Your task to perform on an android device: open app "Microsoft Authenticator" (install if not already installed) and enter user name: "Cornell@yahoo.com" and password: "bothersome" Image 0: 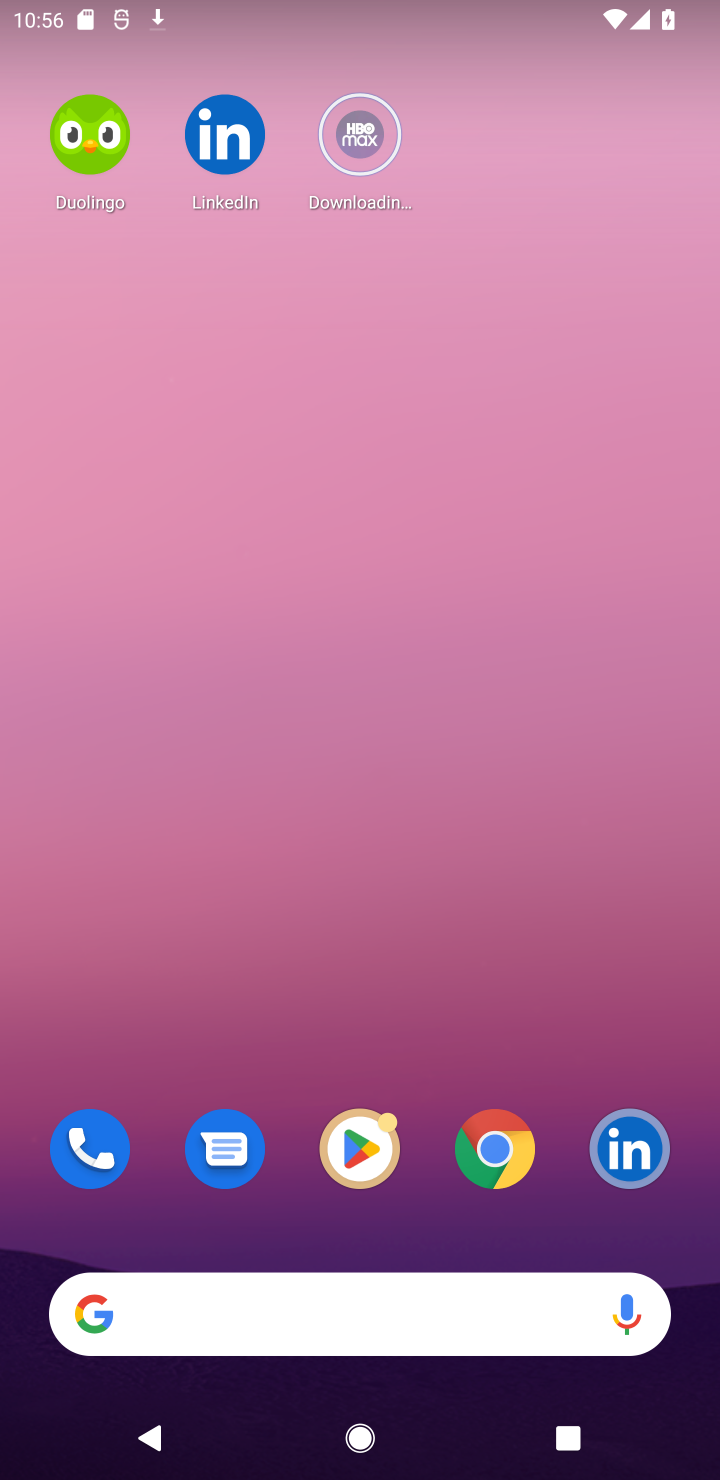
Step 0: click (382, 1151)
Your task to perform on an android device: open app "Microsoft Authenticator" (install if not already installed) and enter user name: "Cornell@yahoo.com" and password: "bothersome" Image 1: 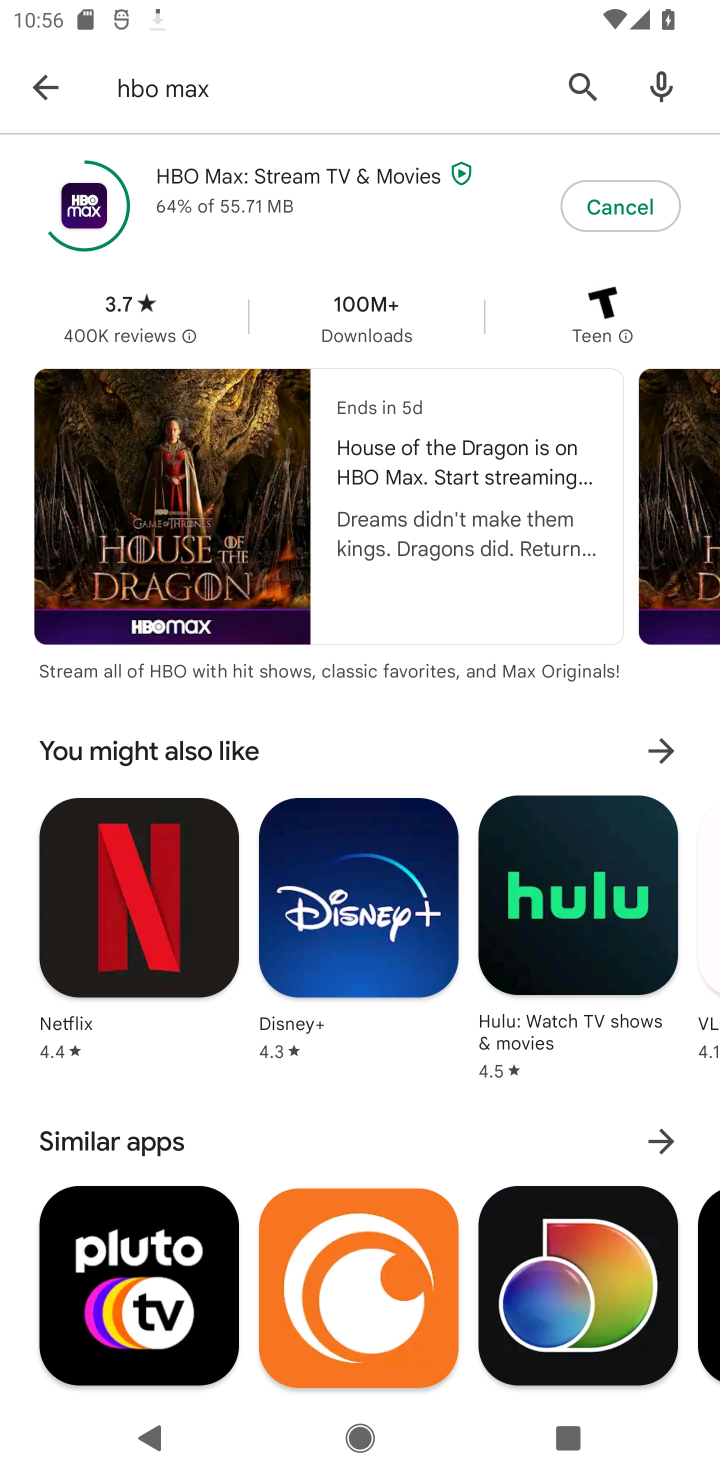
Step 1: click (563, 76)
Your task to perform on an android device: open app "Microsoft Authenticator" (install if not already installed) and enter user name: "Cornell@yahoo.com" and password: "bothersome" Image 2: 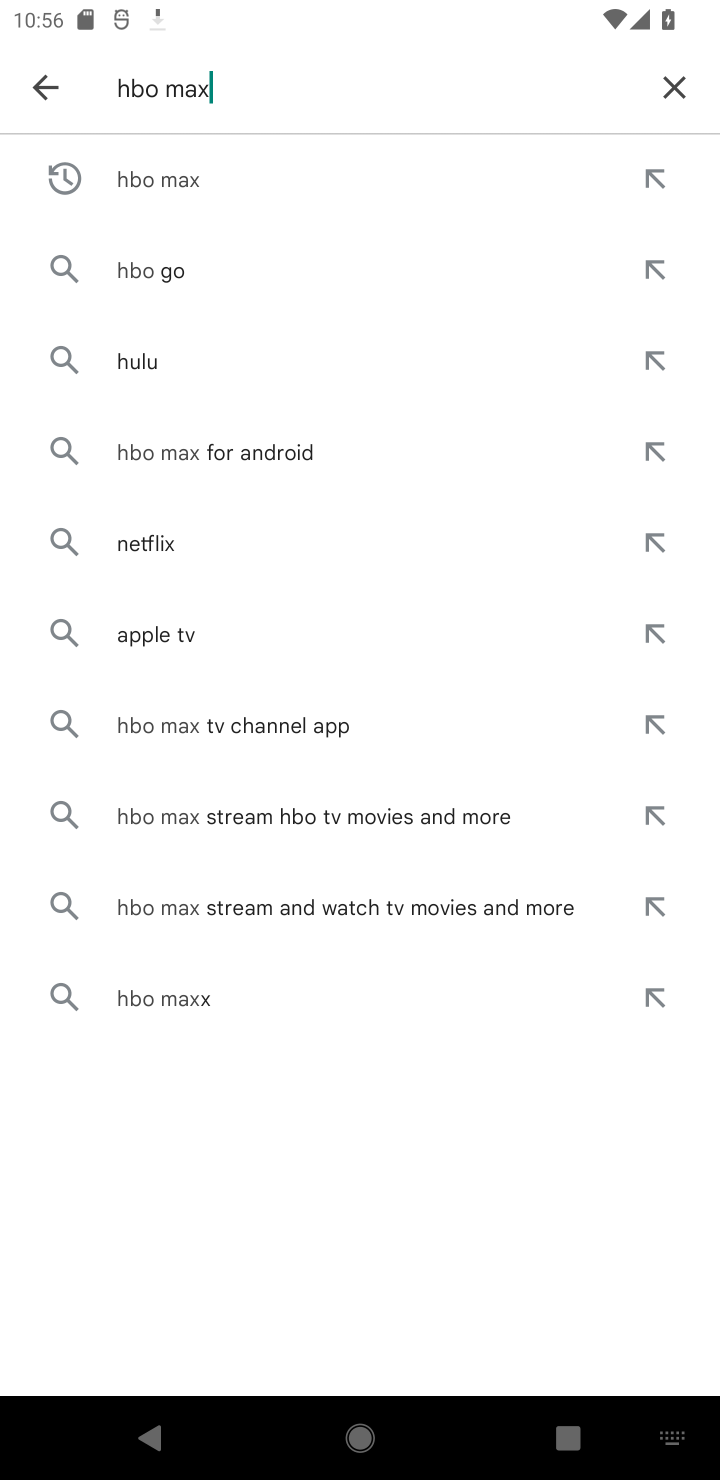
Step 2: click (657, 71)
Your task to perform on an android device: open app "Microsoft Authenticator" (install if not already installed) and enter user name: "Cornell@yahoo.com" and password: "bothersome" Image 3: 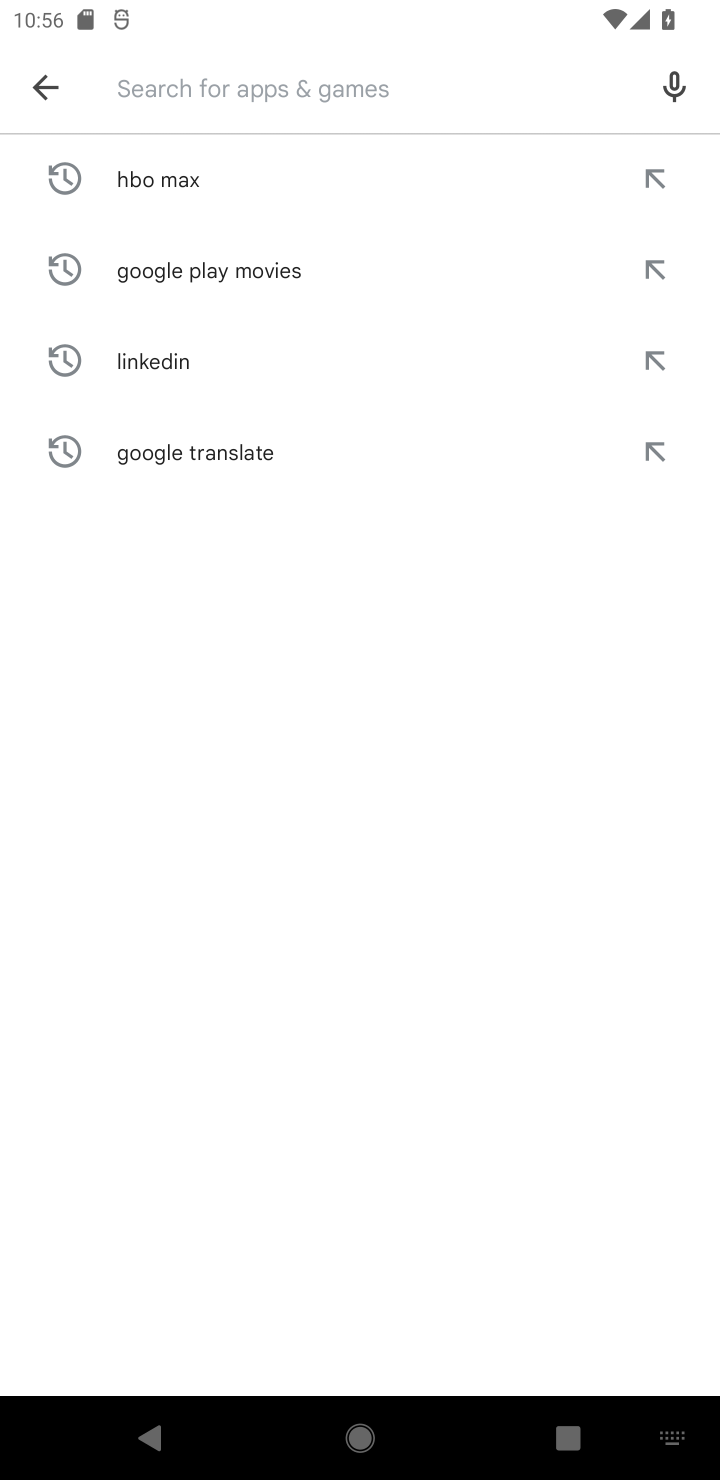
Step 3: type "microsoft"
Your task to perform on an android device: open app "Microsoft Authenticator" (install if not already installed) and enter user name: "Cornell@yahoo.com" and password: "bothersome" Image 4: 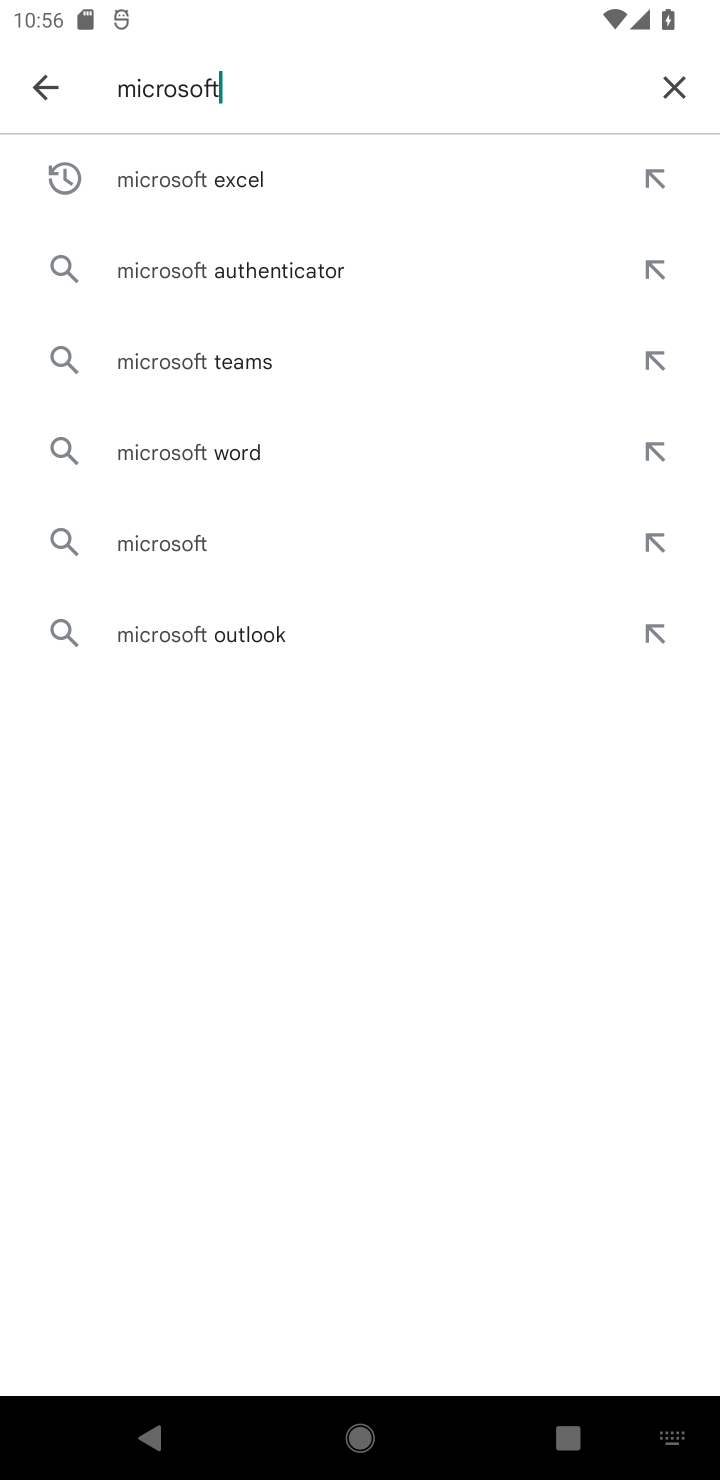
Step 4: click (273, 267)
Your task to perform on an android device: open app "Microsoft Authenticator" (install if not already installed) and enter user name: "Cornell@yahoo.com" and password: "bothersome" Image 5: 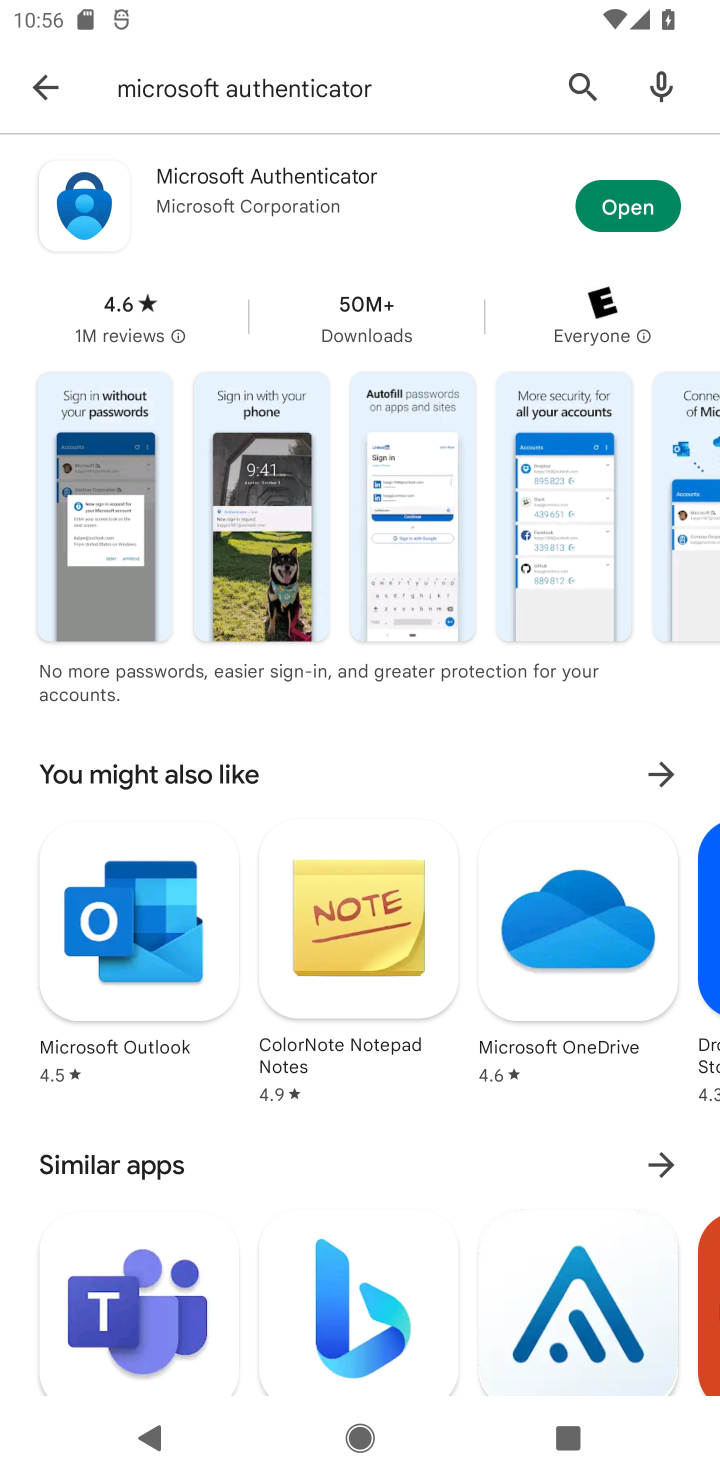
Step 5: click (608, 211)
Your task to perform on an android device: open app "Microsoft Authenticator" (install if not already installed) and enter user name: "Cornell@yahoo.com" and password: "bothersome" Image 6: 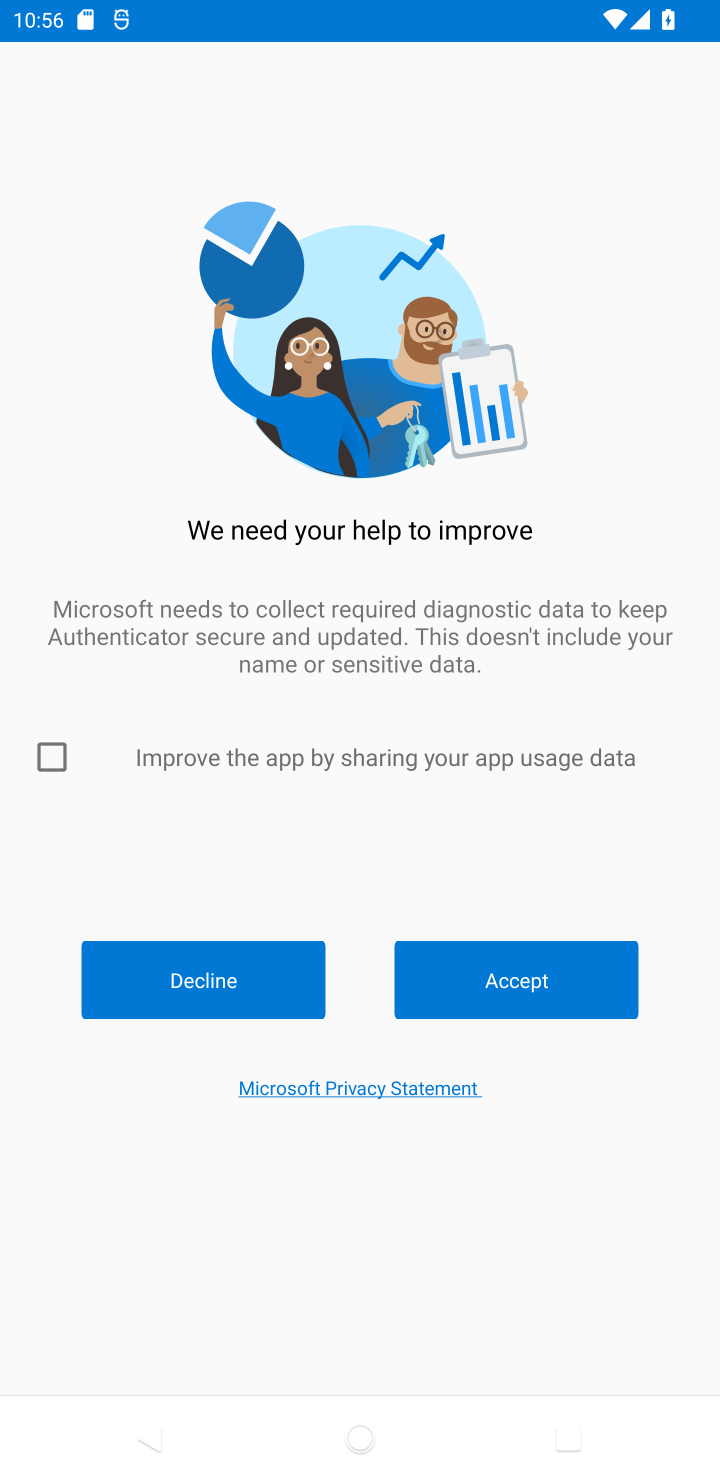
Step 6: click (513, 952)
Your task to perform on an android device: open app "Microsoft Authenticator" (install if not already installed) and enter user name: "Cornell@yahoo.com" and password: "bothersome" Image 7: 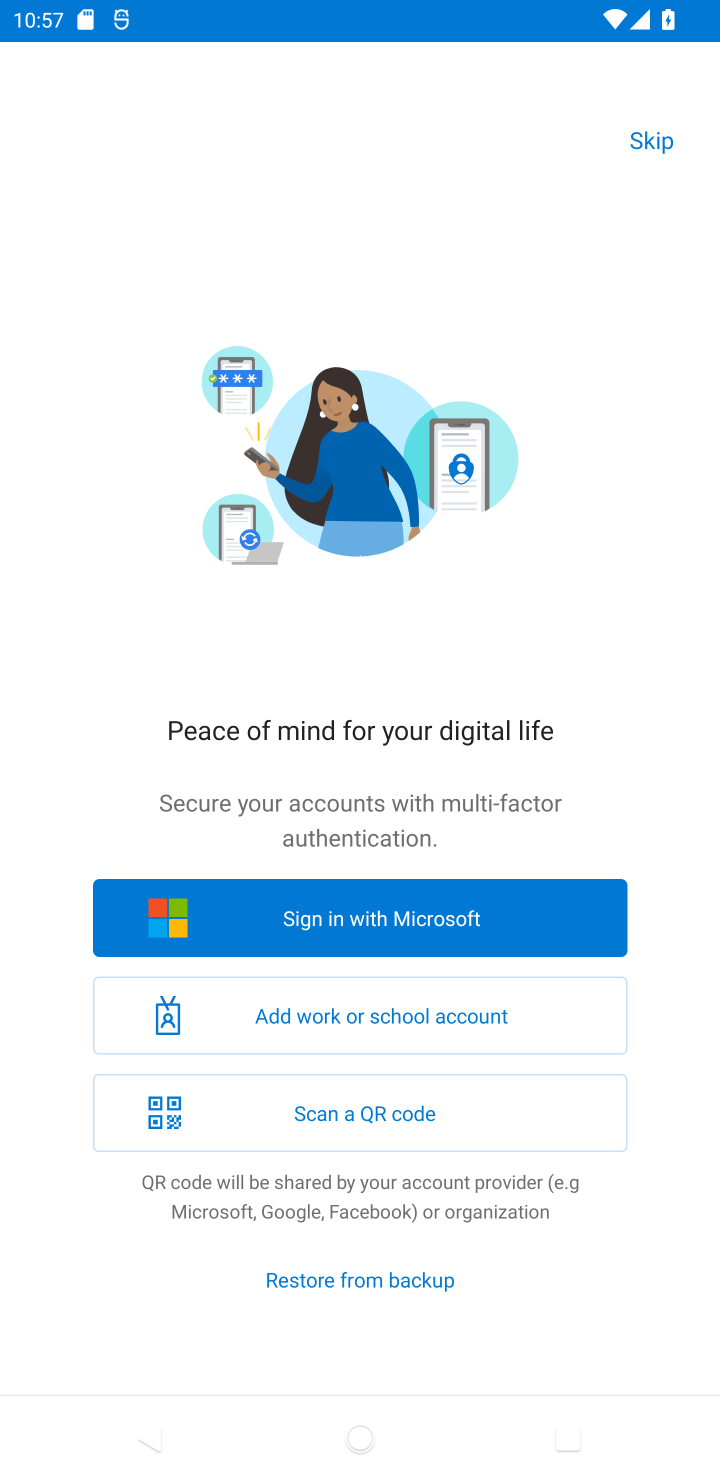
Step 7: click (645, 154)
Your task to perform on an android device: open app "Microsoft Authenticator" (install if not already installed) and enter user name: "Cornell@yahoo.com" and password: "bothersome" Image 8: 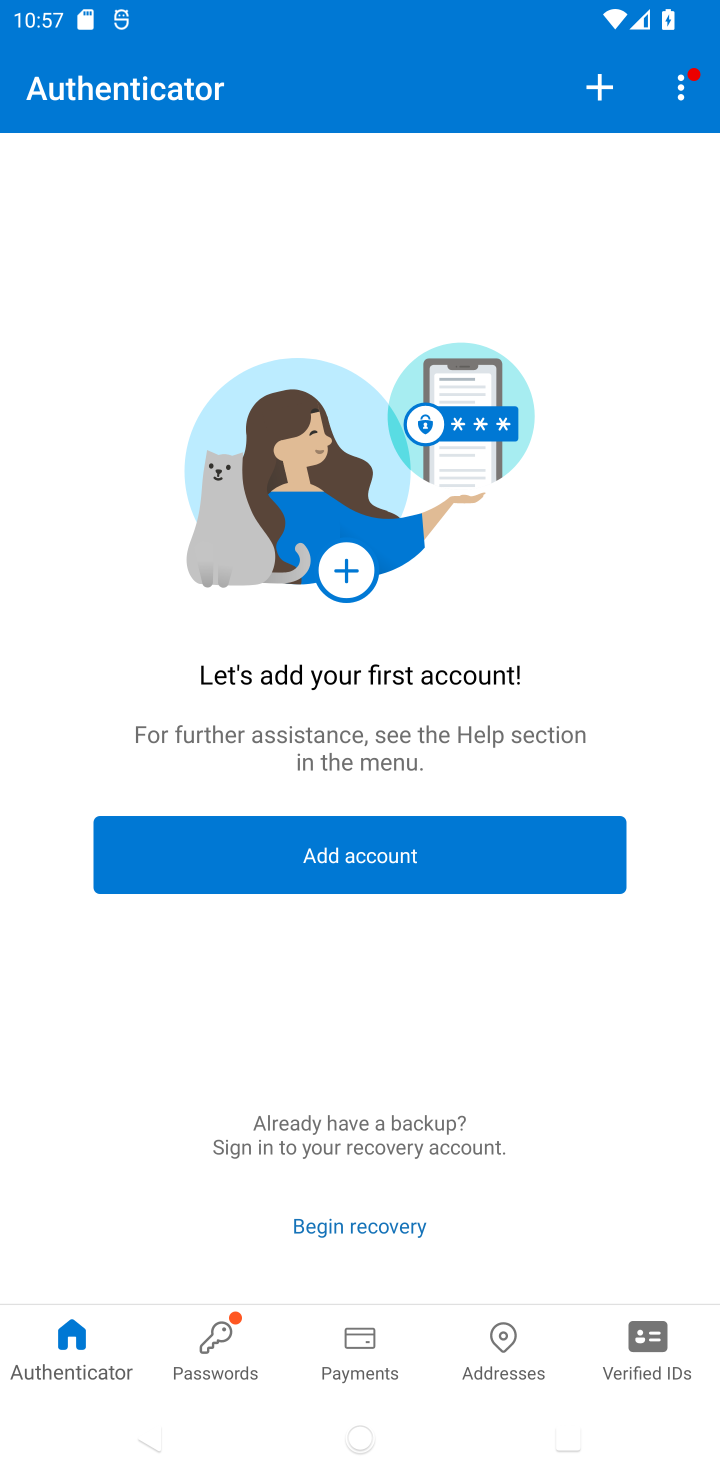
Step 8: click (328, 842)
Your task to perform on an android device: open app "Microsoft Authenticator" (install if not already installed) and enter user name: "Cornell@yahoo.com" and password: "bothersome" Image 9: 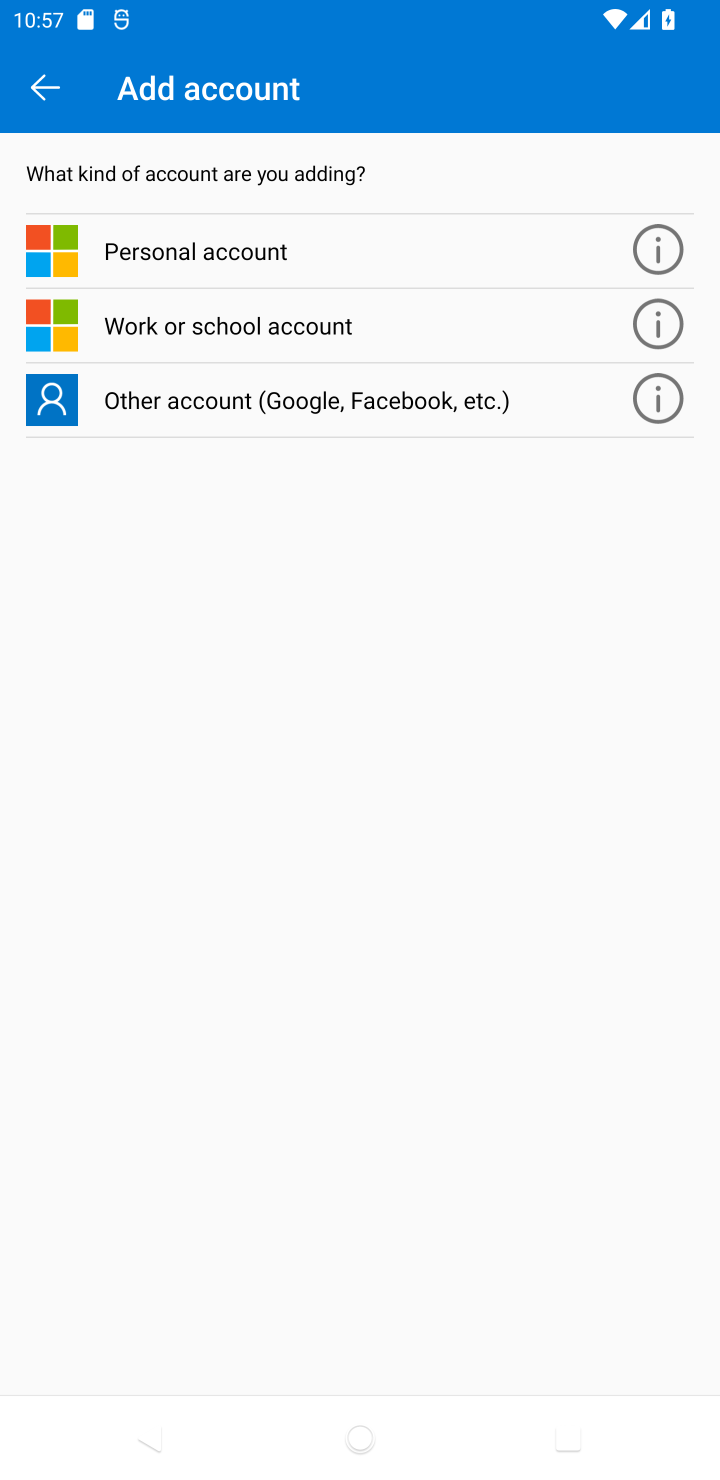
Step 9: click (351, 258)
Your task to perform on an android device: open app "Microsoft Authenticator" (install if not already installed) and enter user name: "Cornell@yahoo.com" and password: "bothersome" Image 10: 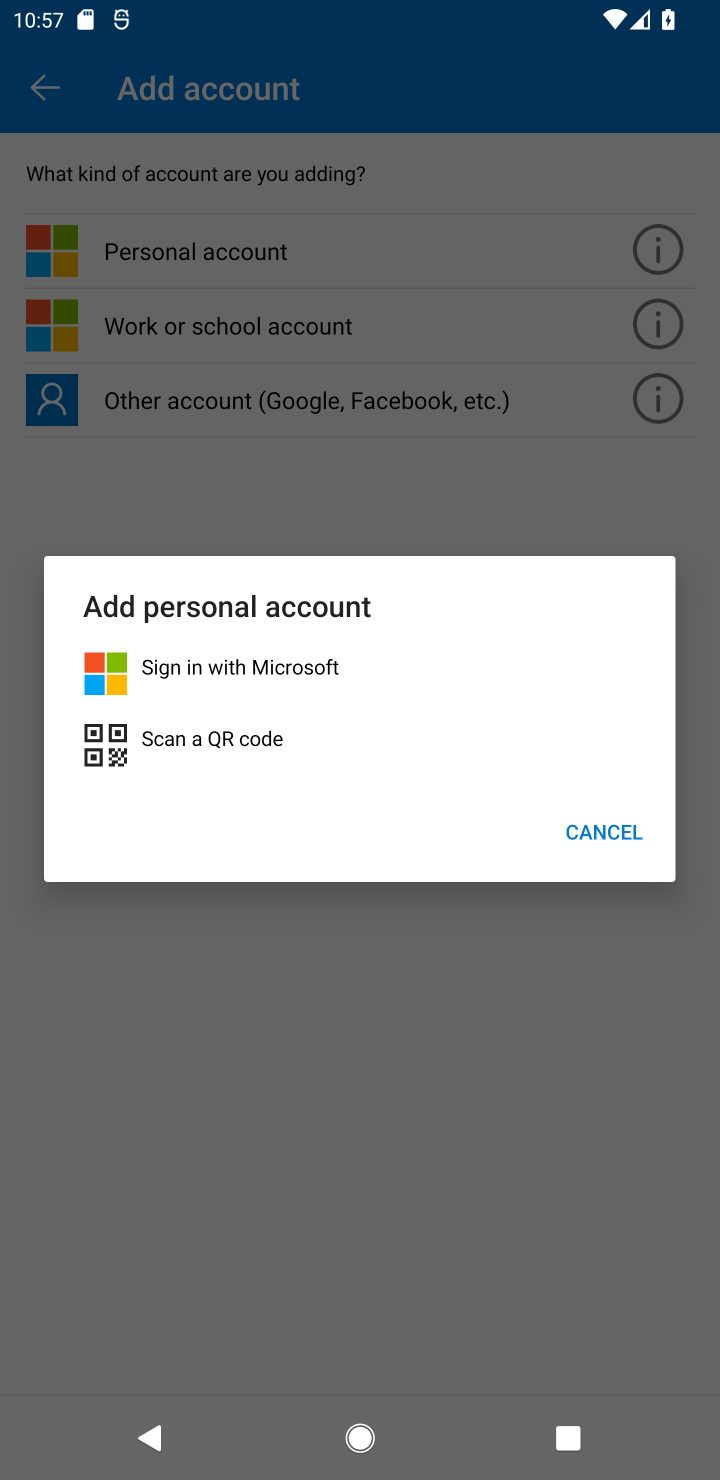
Step 10: task complete